Your task to perform on an android device: Open Reddit.com Image 0: 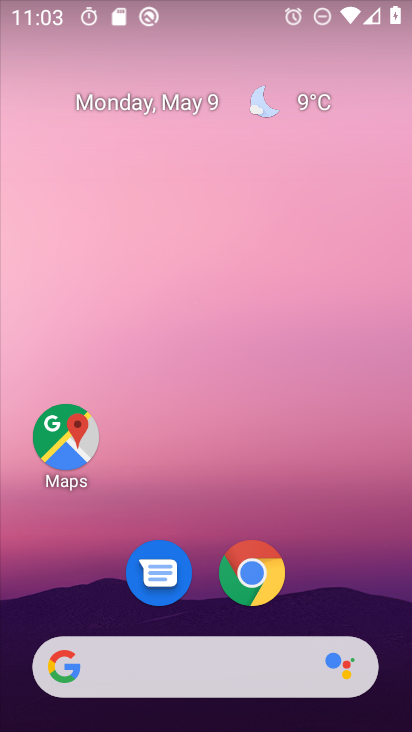
Step 0: click (257, 570)
Your task to perform on an android device: Open Reddit.com Image 1: 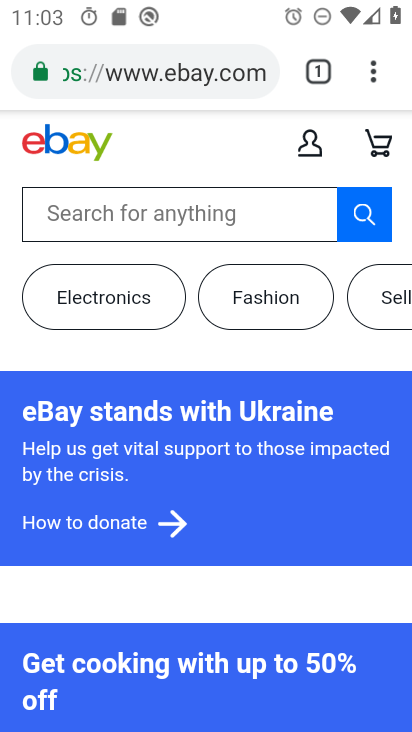
Step 1: click (228, 79)
Your task to perform on an android device: Open Reddit.com Image 2: 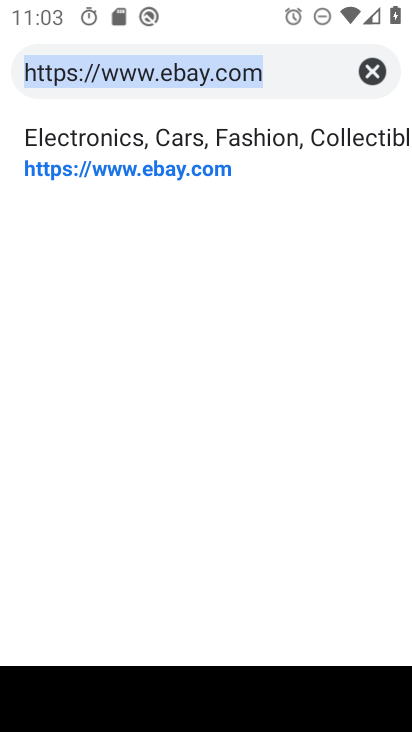
Step 2: type "reddit.com"
Your task to perform on an android device: Open Reddit.com Image 3: 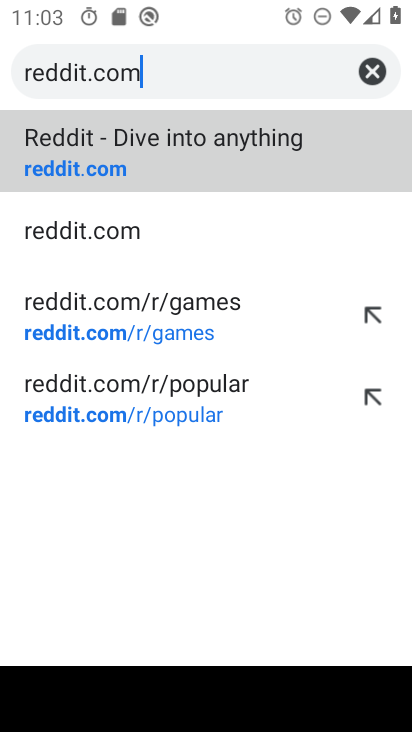
Step 3: click (94, 163)
Your task to perform on an android device: Open Reddit.com Image 4: 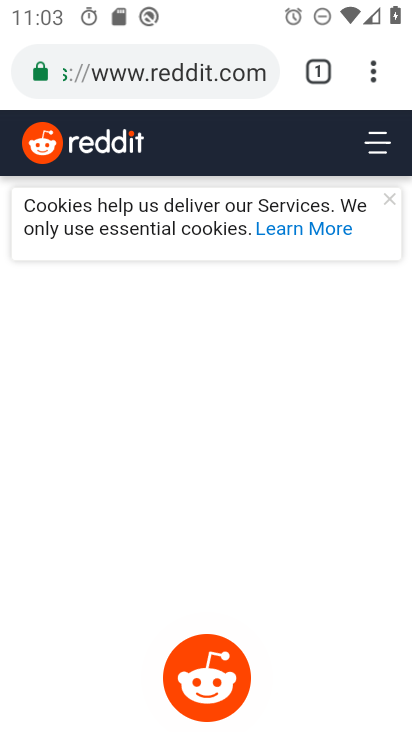
Step 4: task complete